Your task to perform on an android device: When is my next meeting? Image 0: 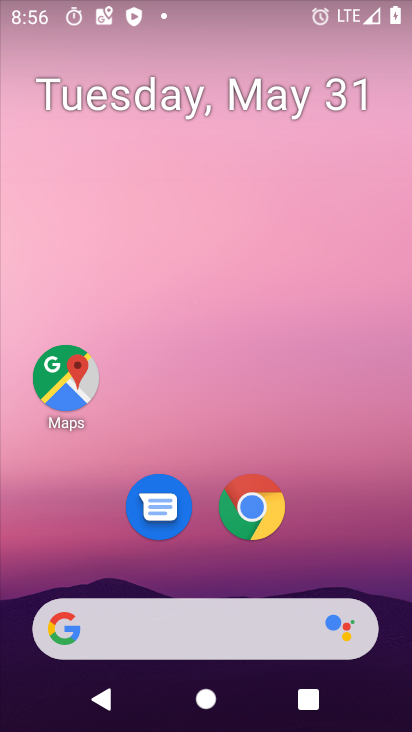
Step 0: drag from (58, 470) to (202, 202)
Your task to perform on an android device: When is my next meeting? Image 1: 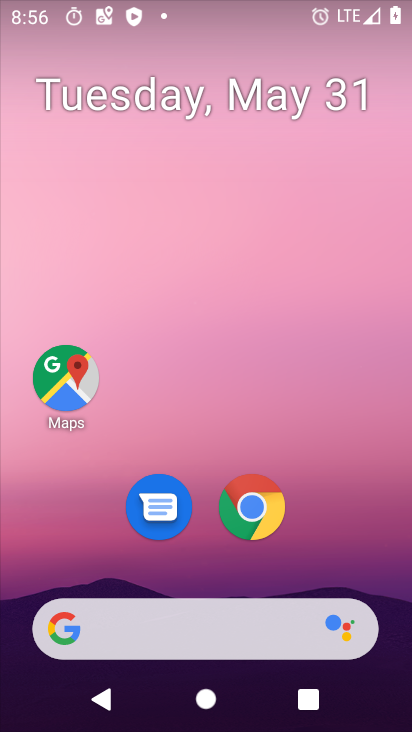
Step 1: drag from (94, 415) to (204, 170)
Your task to perform on an android device: When is my next meeting? Image 2: 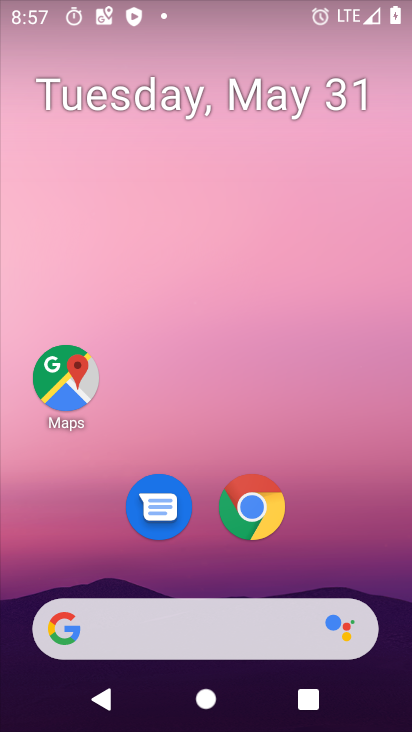
Step 2: drag from (9, 551) to (154, 203)
Your task to perform on an android device: When is my next meeting? Image 3: 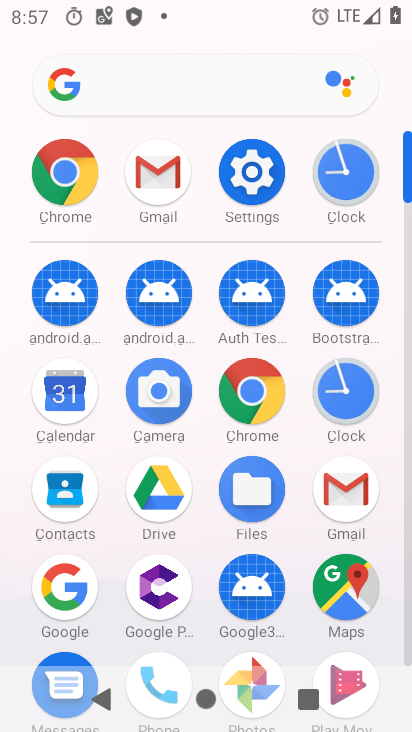
Step 3: click (71, 402)
Your task to perform on an android device: When is my next meeting? Image 4: 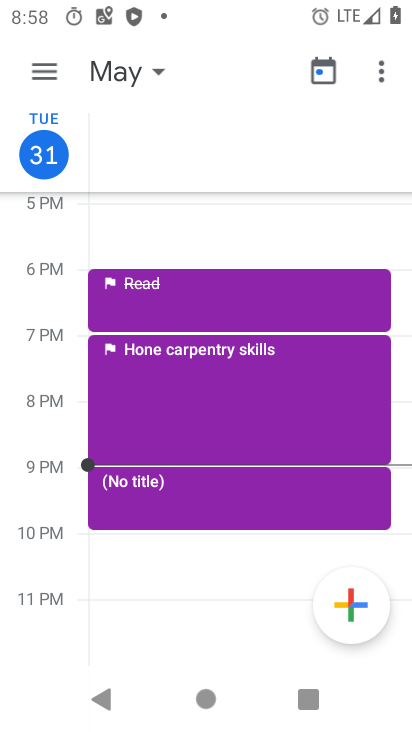
Step 4: click (108, 73)
Your task to perform on an android device: When is my next meeting? Image 5: 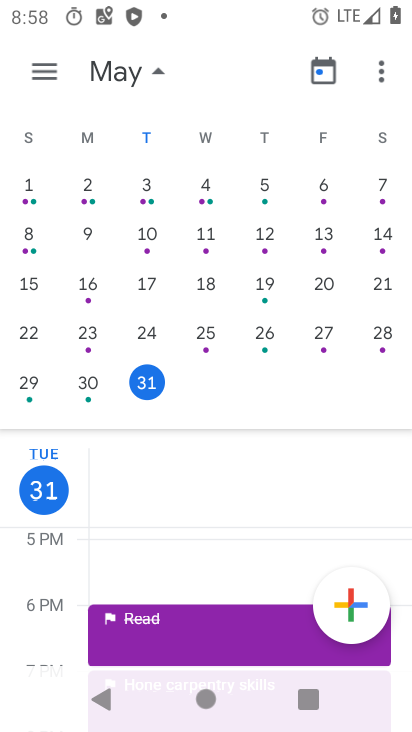
Step 5: task complete